Your task to perform on an android device: Open privacy settings Image 0: 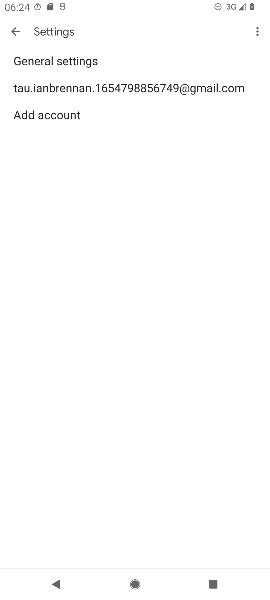
Step 0: press home button
Your task to perform on an android device: Open privacy settings Image 1: 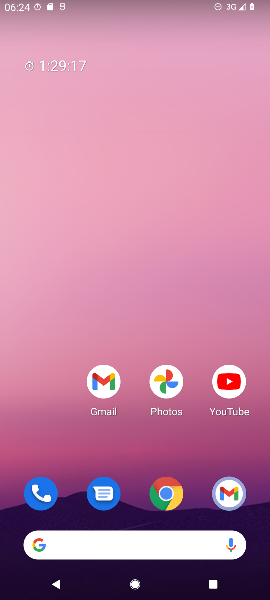
Step 1: drag from (57, 443) to (67, 88)
Your task to perform on an android device: Open privacy settings Image 2: 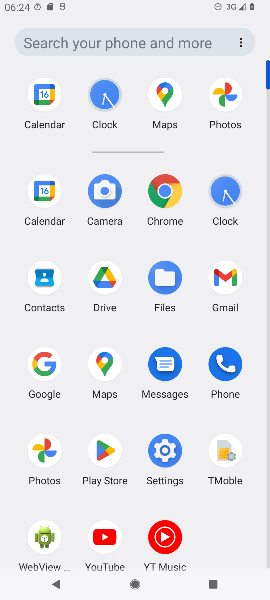
Step 2: click (163, 461)
Your task to perform on an android device: Open privacy settings Image 3: 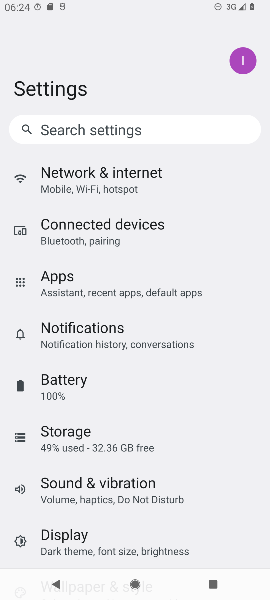
Step 3: drag from (209, 466) to (221, 325)
Your task to perform on an android device: Open privacy settings Image 4: 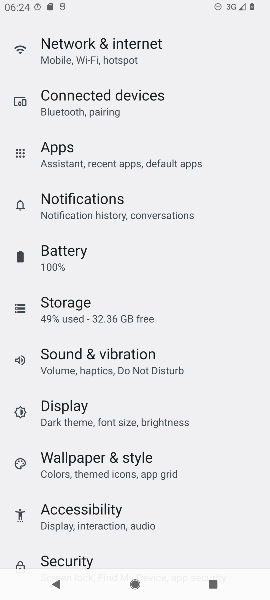
Step 4: drag from (237, 462) to (234, 310)
Your task to perform on an android device: Open privacy settings Image 5: 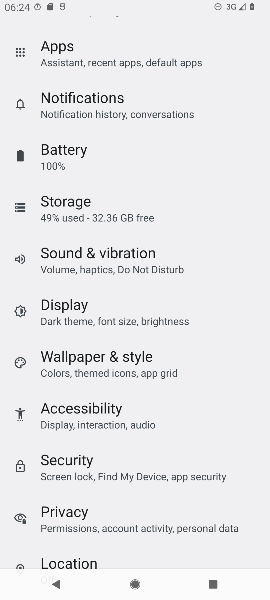
Step 5: drag from (236, 491) to (231, 313)
Your task to perform on an android device: Open privacy settings Image 6: 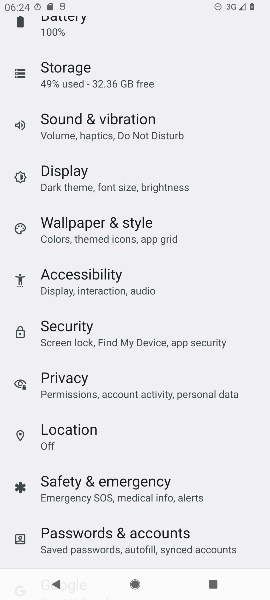
Step 6: drag from (225, 443) to (204, 228)
Your task to perform on an android device: Open privacy settings Image 7: 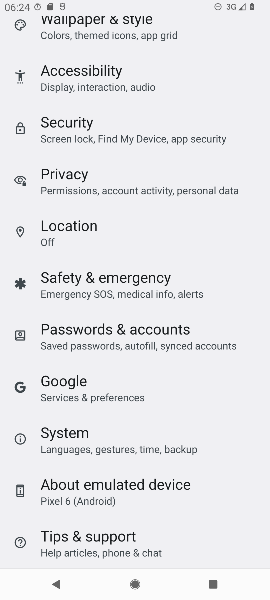
Step 7: drag from (220, 476) to (219, 299)
Your task to perform on an android device: Open privacy settings Image 8: 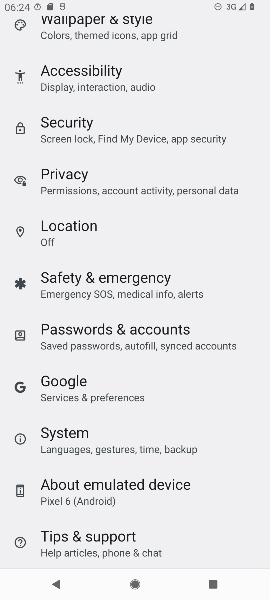
Step 8: drag from (240, 200) to (245, 359)
Your task to perform on an android device: Open privacy settings Image 9: 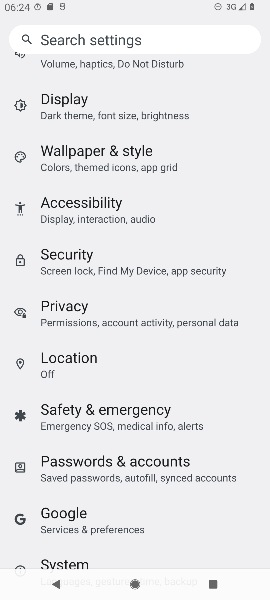
Step 9: drag from (252, 181) to (239, 372)
Your task to perform on an android device: Open privacy settings Image 10: 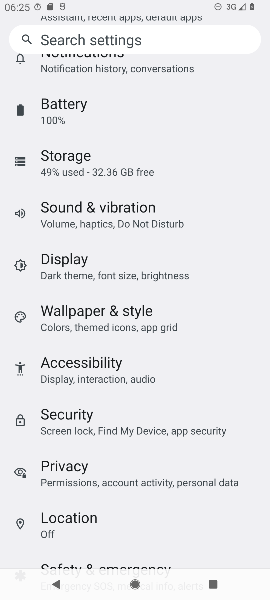
Step 10: drag from (231, 214) to (218, 460)
Your task to perform on an android device: Open privacy settings Image 11: 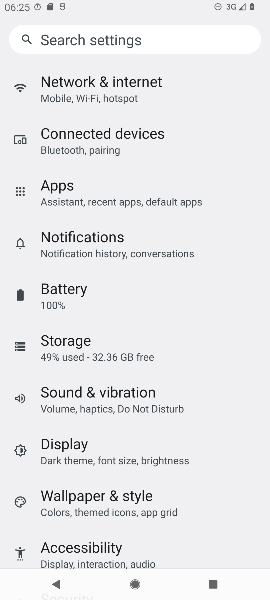
Step 11: drag from (218, 461) to (220, 174)
Your task to perform on an android device: Open privacy settings Image 12: 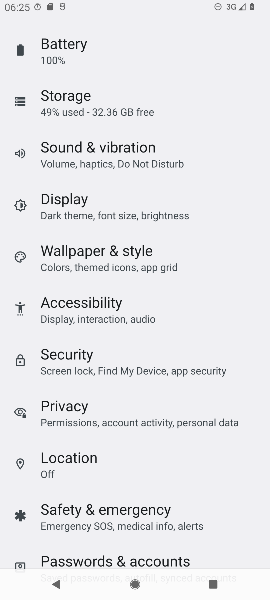
Step 12: click (203, 405)
Your task to perform on an android device: Open privacy settings Image 13: 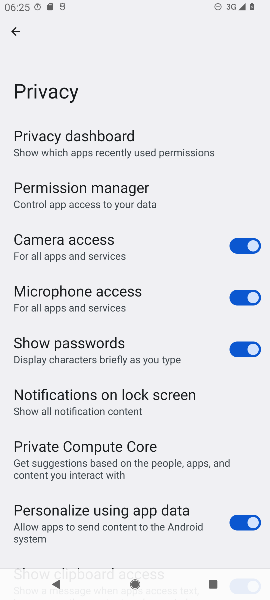
Step 13: task complete